Your task to perform on an android device: Go to display settings Image 0: 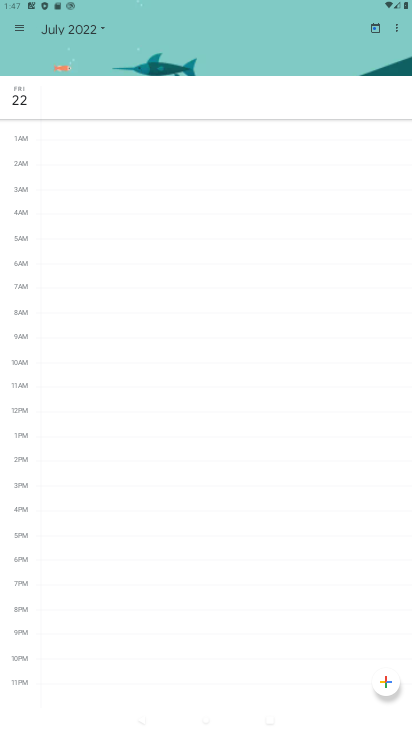
Step 0: press home button
Your task to perform on an android device: Go to display settings Image 1: 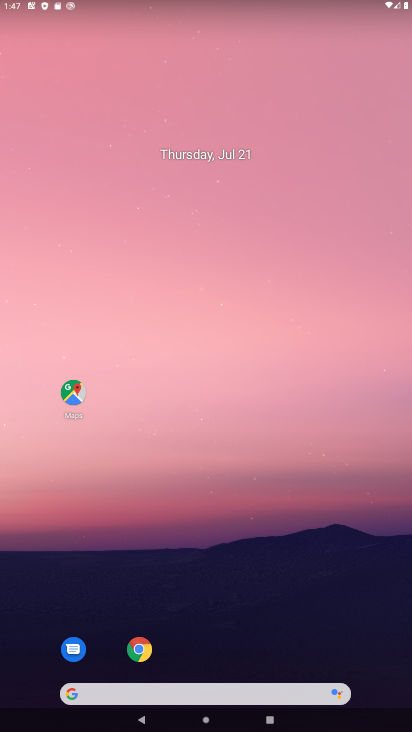
Step 1: drag from (229, 722) to (202, 68)
Your task to perform on an android device: Go to display settings Image 2: 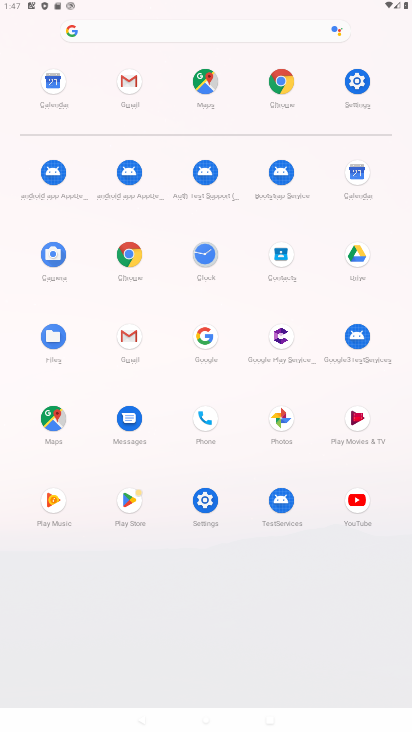
Step 2: click (357, 82)
Your task to perform on an android device: Go to display settings Image 3: 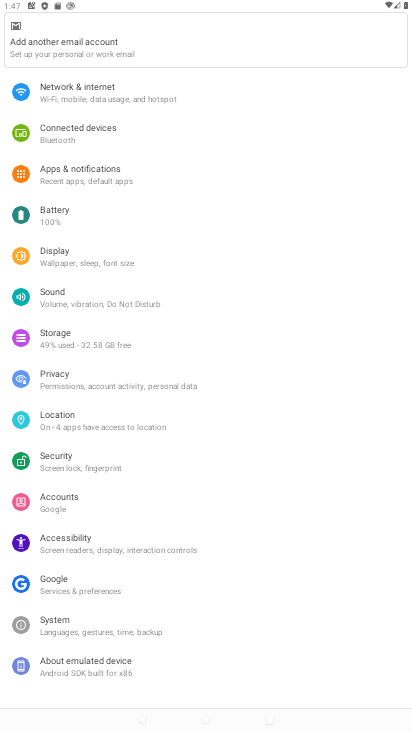
Step 3: click (53, 250)
Your task to perform on an android device: Go to display settings Image 4: 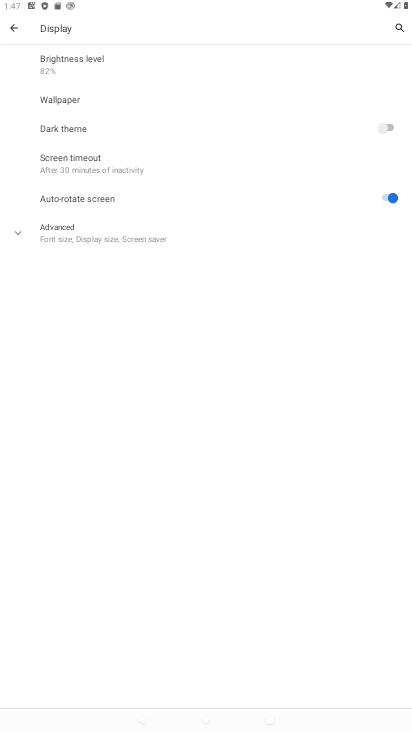
Step 4: task complete